Your task to perform on an android device: Is it going to rain today? Image 0: 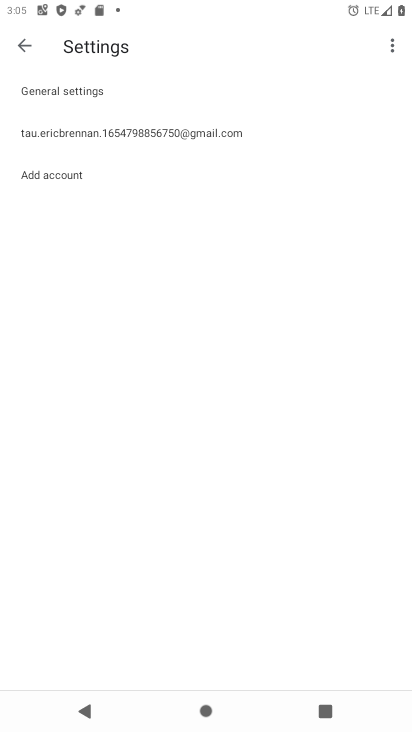
Step 0: press home button
Your task to perform on an android device: Is it going to rain today? Image 1: 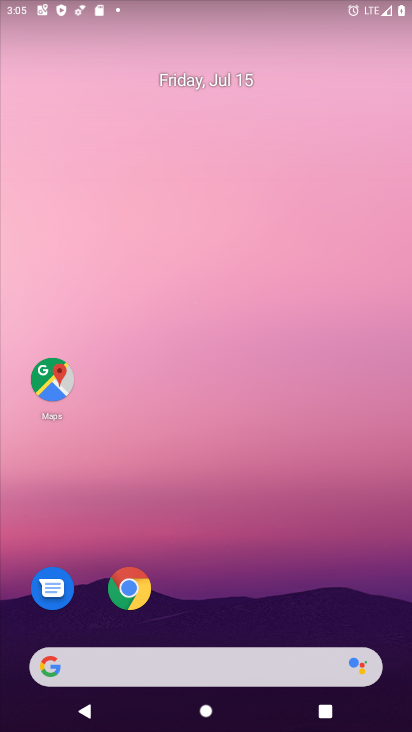
Step 1: drag from (200, 661) to (198, 204)
Your task to perform on an android device: Is it going to rain today? Image 2: 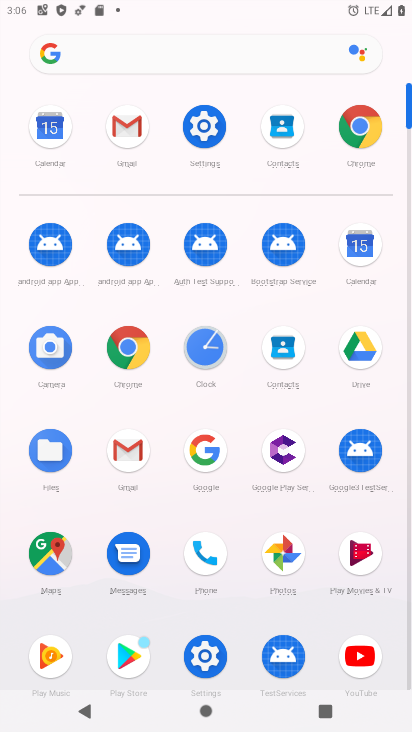
Step 2: click (202, 451)
Your task to perform on an android device: Is it going to rain today? Image 3: 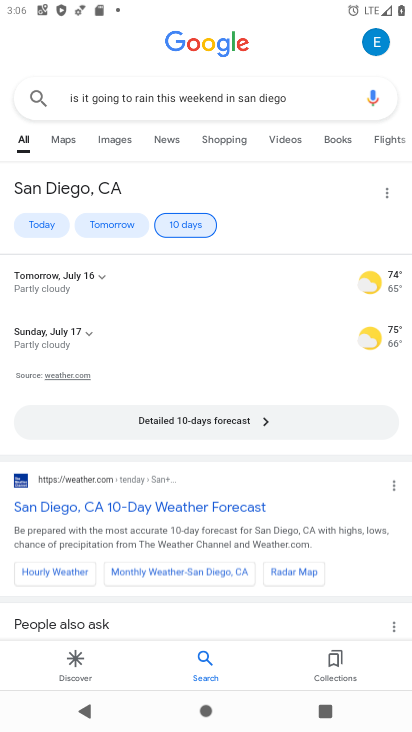
Step 3: click (307, 100)
Your task to perform on an android device: Is it going to rain today? Image 4: 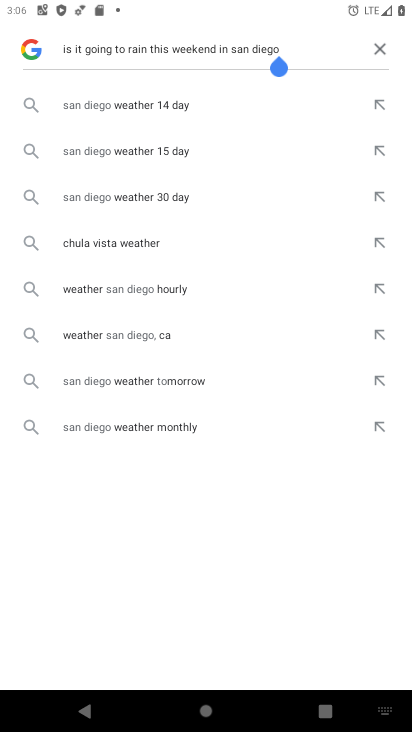
Step 4: click (384, 44)
Your task to perform on an android device: Is it going to rain today? Image 5: 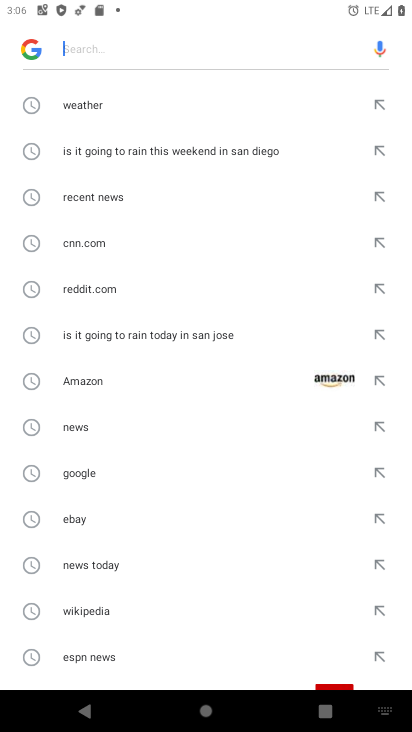
Step 5: click (98, 111)
Your task to perform on an android device: Is it going to rain today? Image 6: 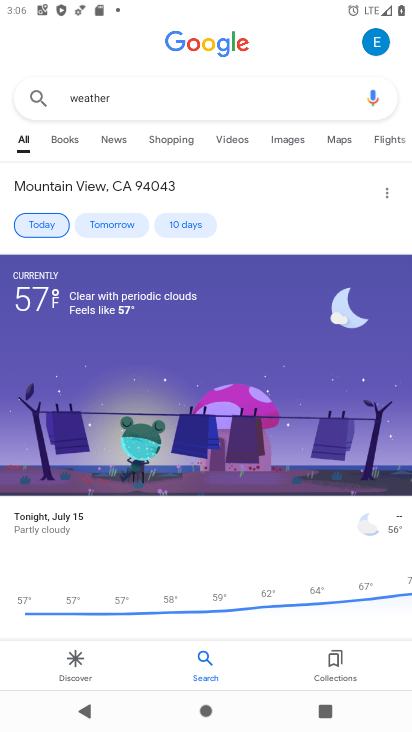
Step 6: task complete